Your task to perform on an android device: snooze an email in the gmail app Image 0: 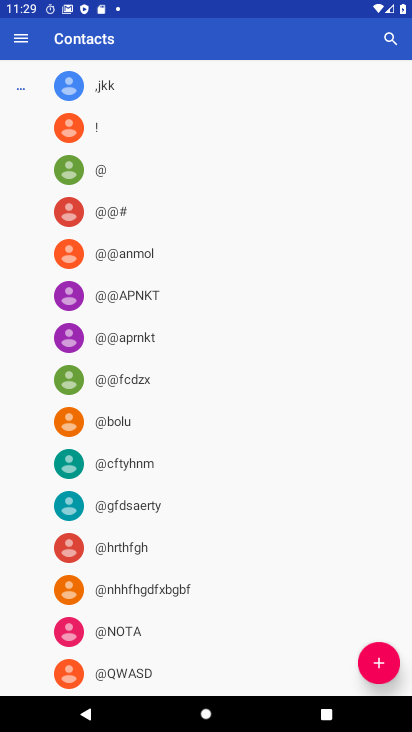
Step 0: press back button
Your task to perform on an android device: snooze an email in the gmail app Image 1: 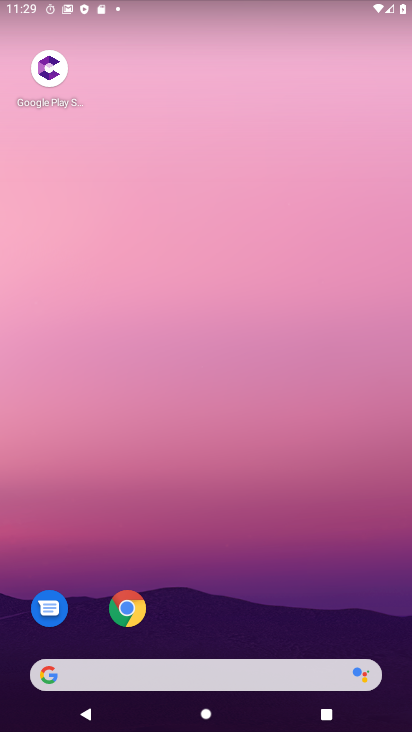
Step 1: drag from (199, 602) to (201, 126)
Your task to perform on an android device: snooze an email in the gmail app Image 2: 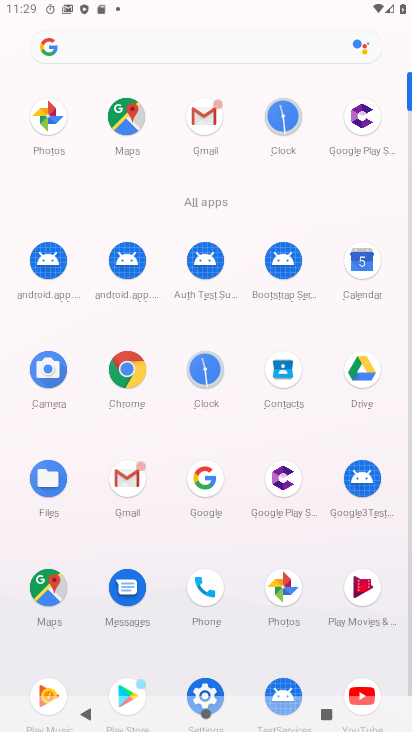
Step 2: click (202, 115)
Your task to perform on an android device: snooze an email in the gmail app Image 3: 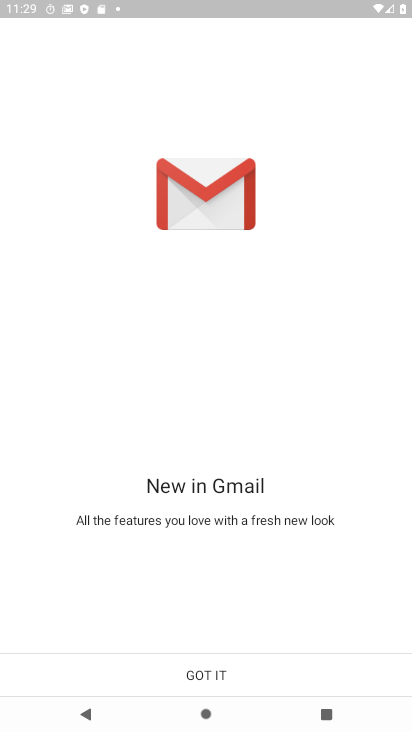
Step 3: click (209, 680)
Your task to perform on an android device: snooze an email in the gmail app Image 4: 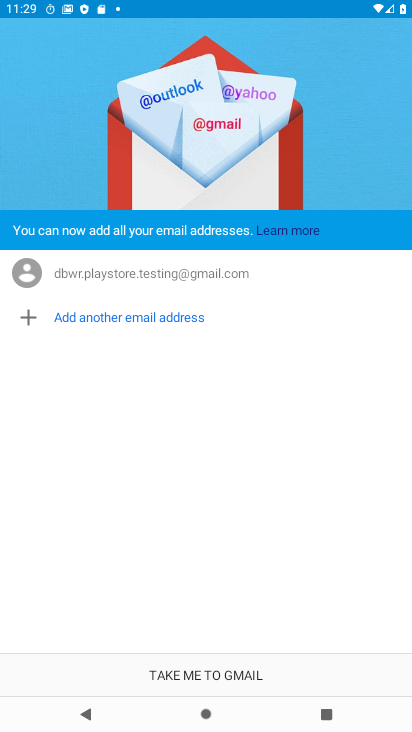
Step 4: click (209, 680)
Your task to perform on an android device: snooze an email in the gmail app Image 5: 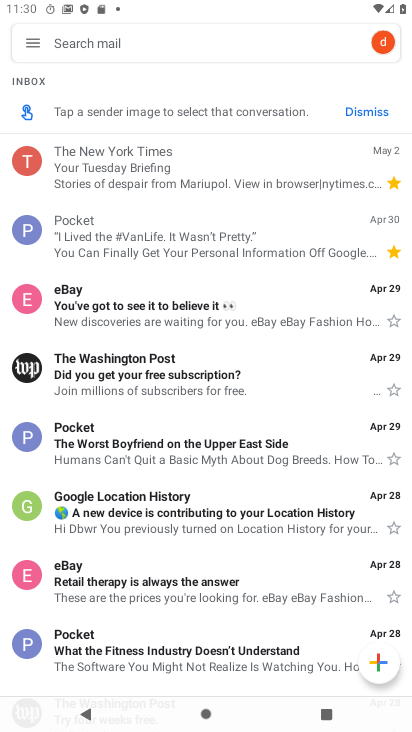
Step 5: click (163, 307)
Your task to perform on an android device: snooze an email in the gmail app Image 6: 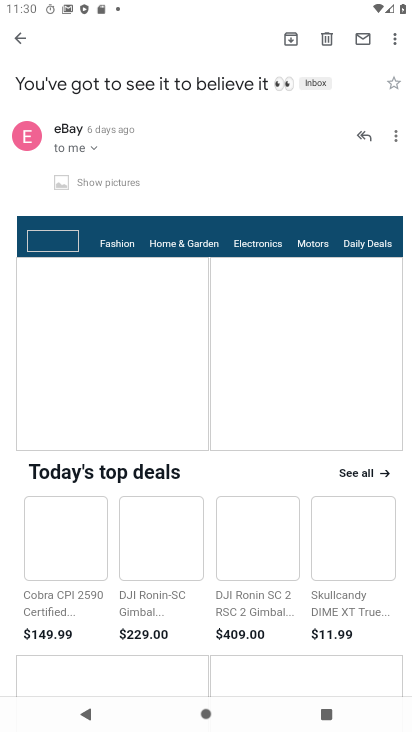
Step 6: click (396, 41)
Your task to perform on an android device: snooze an email in the gmail app Image 7: 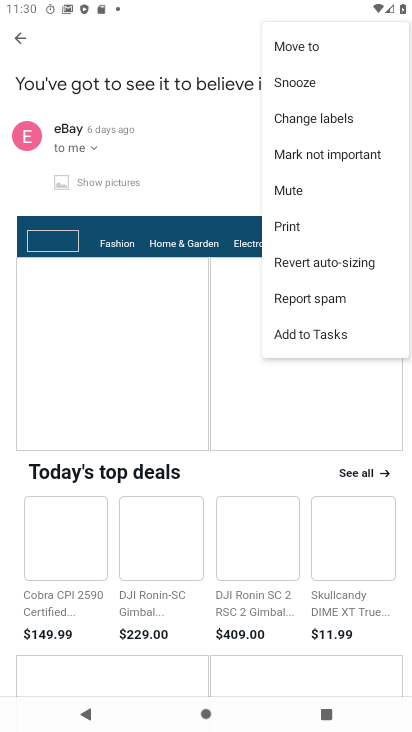
Step 7: click (308, 80)
Your task to perform on an android device: snooze an email in the gmail app Image 8: 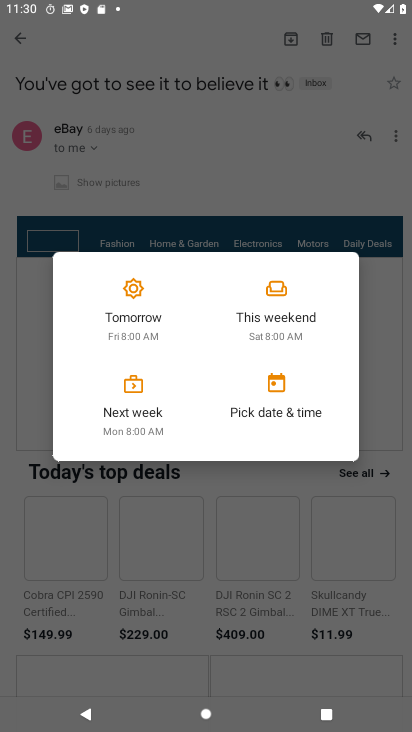
Step 8: click (145, 310)
Your task to perform on an android device: snooze an email in the gmail app Image 9: 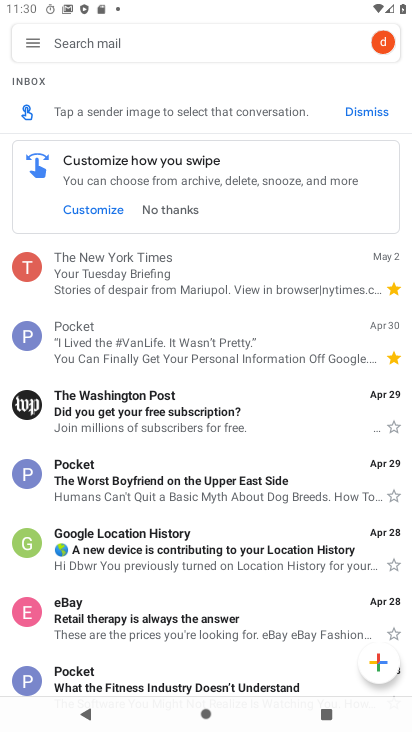
Step 9: task complete